Your task to perform on an android device: toggle pop-ups in chrome Image 0: 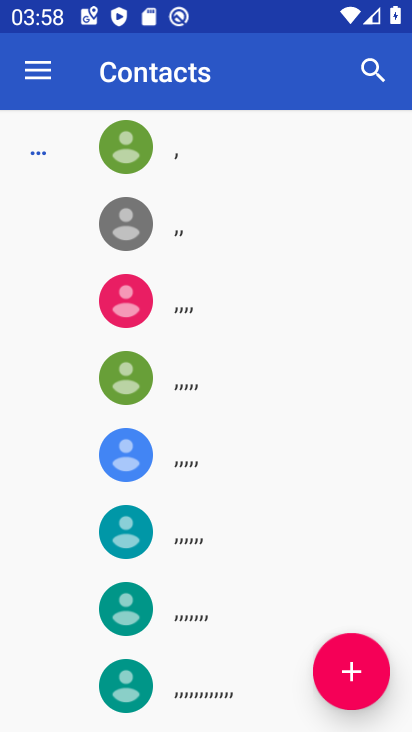
Step 0: press home button
Your task to perform on an android device: toggle pop-ups in chrome Image 1: 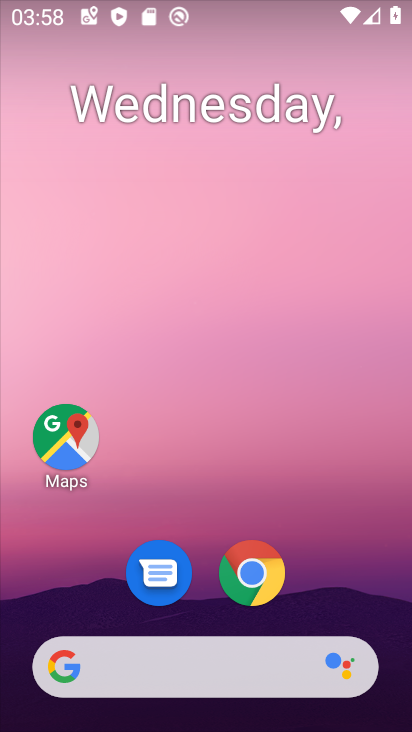
Step 1: click (248, 574)
Your task to perform on an android device: toggle pop-ups in chrome Image 2: 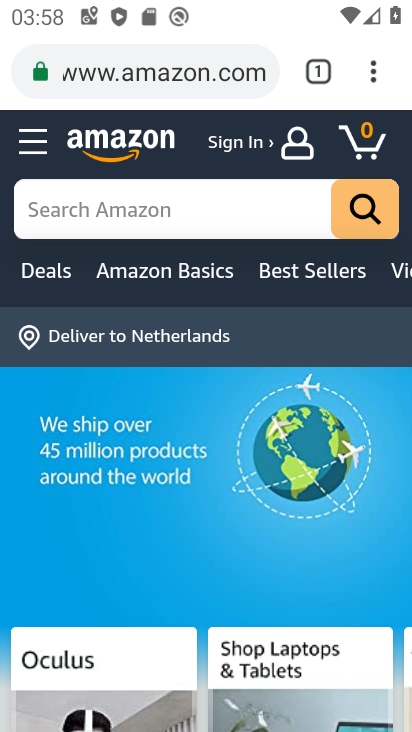
Step 2: click (375, 74)
Your task to perform on an android device: toggle pop-ups in chrome Image 3: 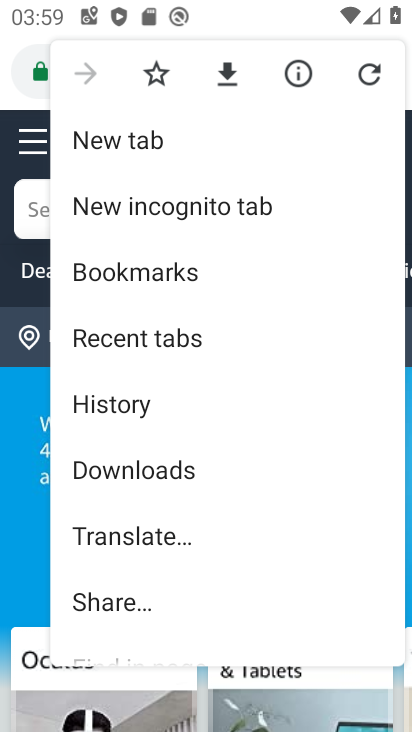
Step 3: drag from (143, 572) to (222, 397)
Your task to perform on an android device: toggle pop-ups in chrome Image 4: 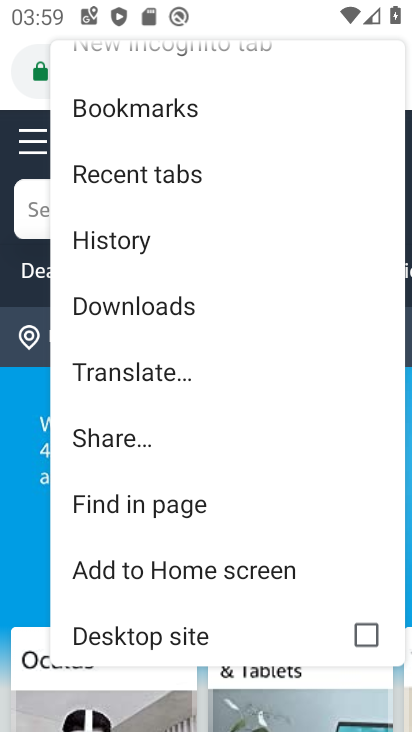
Step 4: drag from (190, 540) to (290, 381)
Your task to perform on an android device: toggle pop-ups in chrome Image 5: 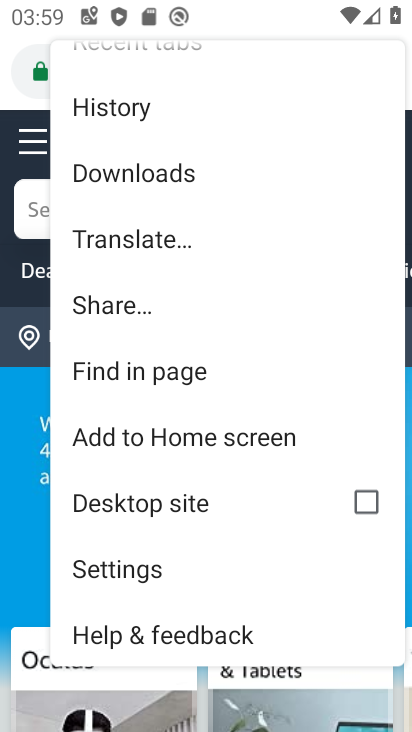
Step 5: click (136, 573)
Your task to perform on an android device: toggle pop-ups in chrome Image 6: 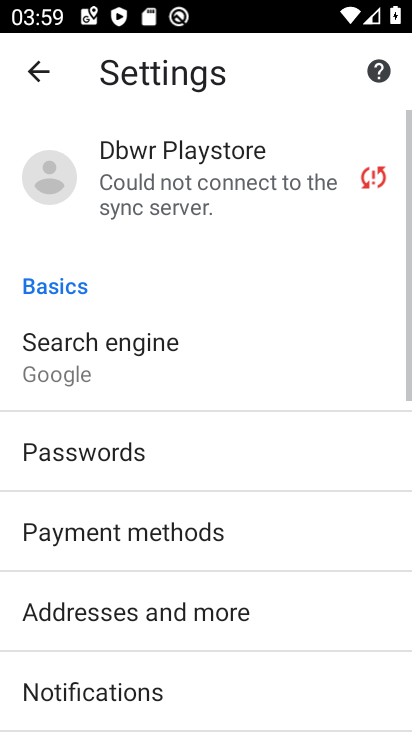
Step 6: drag from (197, 483) to (236, 354)
Your task to perform on an android device: toggle pop-ups in chrome Image 7: 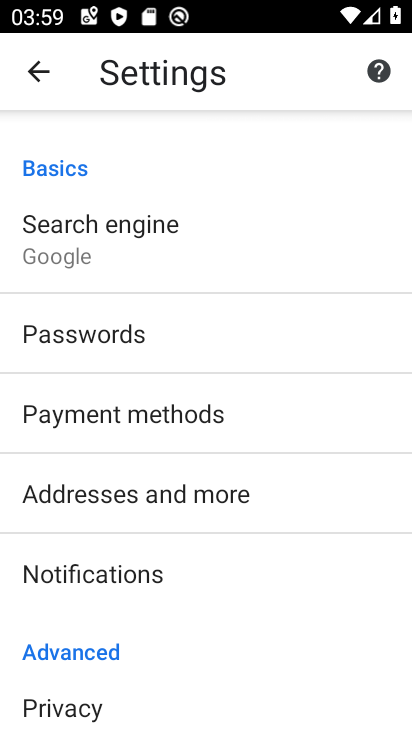
Step 7: drag from (185, 548) to (278, 365)
Your task to perform on an android device: toggle pop-ups in chrome Image 8: 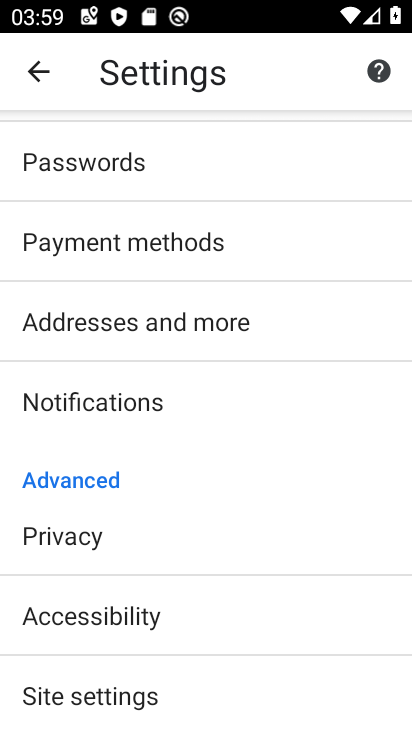
Step 8: drag from (194, 537) to (281, 400)
Your task to perform on an android device: toggle pop-ups in chrome Image 9: 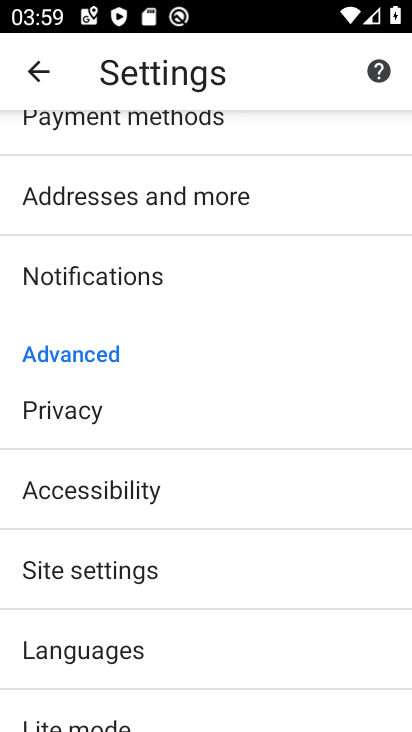
Step 9: drag from (184, 623) to (235, 464)
Your task to perform on an android device: toggle pop-ups in chrome Image 10: 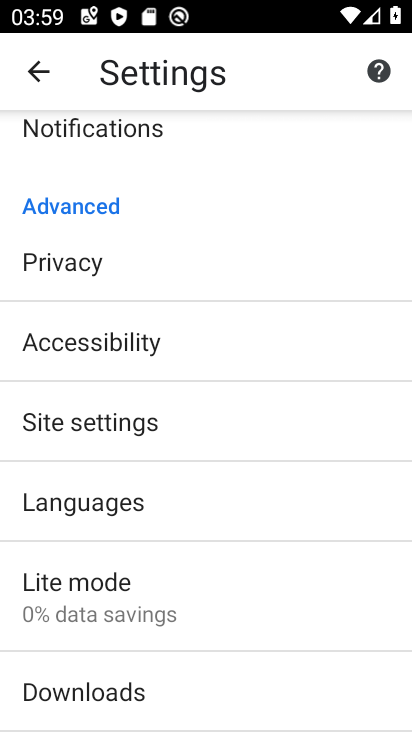
Step 10: click (122, 421)
Your task to perform on an android device: toggle pop-ups in chrome Image 11: 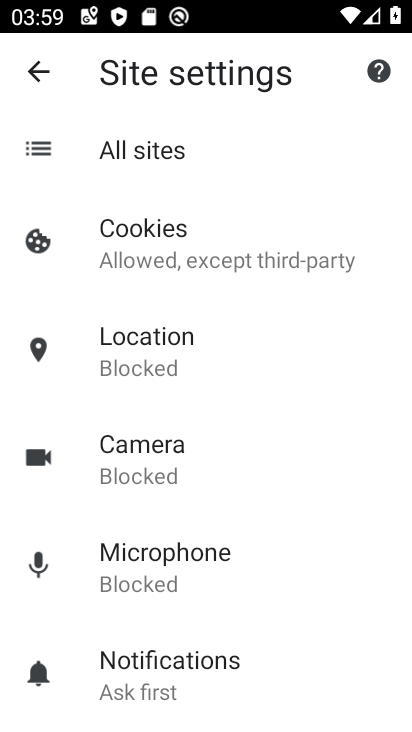
Step 11: drag from (231, 591) to (274, 425)
Your task to perform on an android device: toggle pop-ups in chrome Image 12: 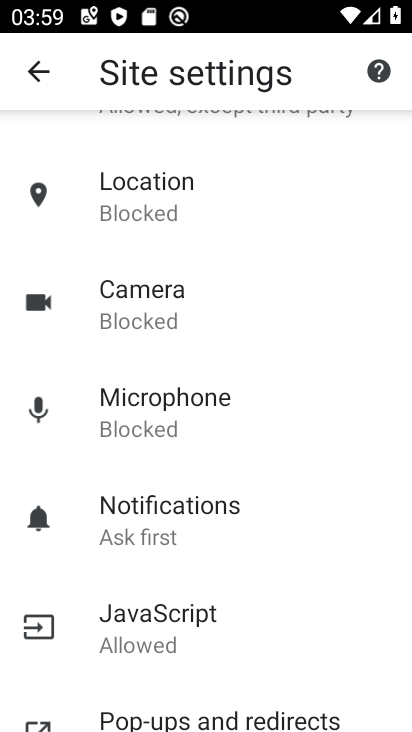
Step 12: drag from (177, 621) to (278, 501)
Your task to perform on an android device: toggle pop-ups in chrome Image 13: 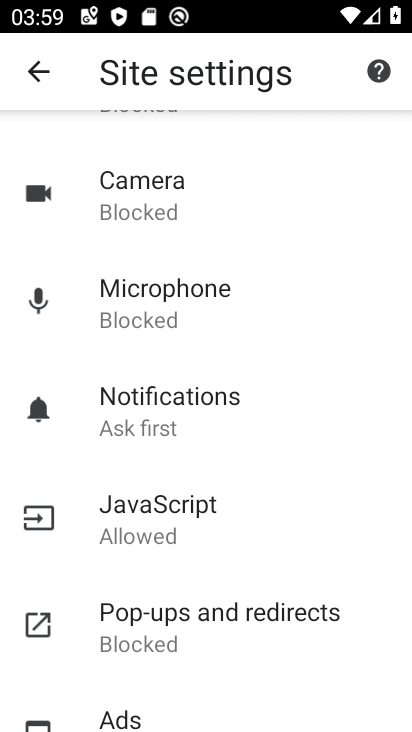
Step 13: click (182, 615)
Your task to perform on an android device: toggle pop-ups in chrome Image 14: 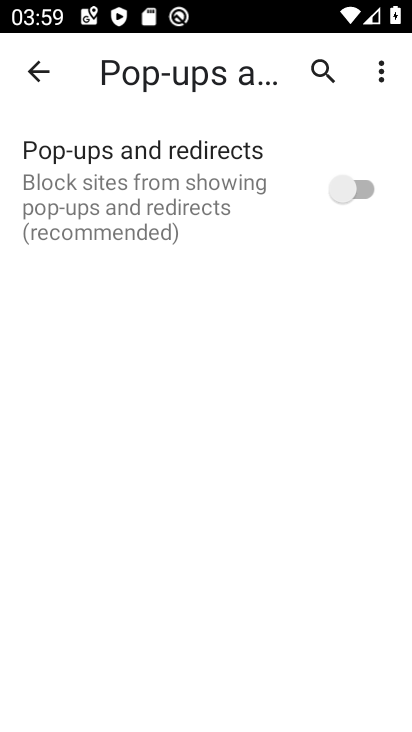
Step 14: click (335, 187)
Your task to perform on an android device: toggle pop-ups in chrome Image 15: 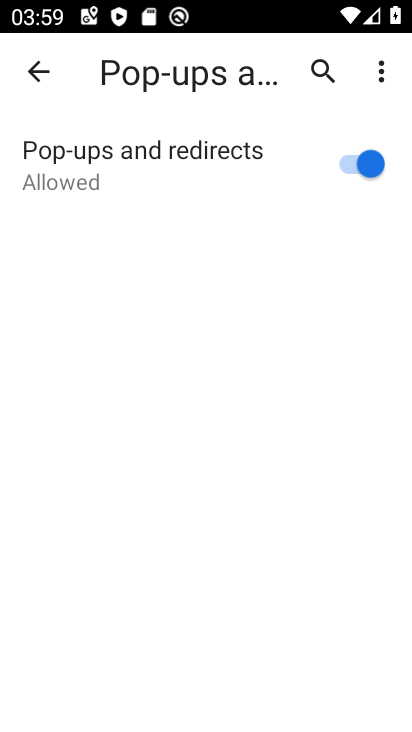
Step 15: task complete